Your task to perform on an android device: search for starred emails in the gmail app Image 0: 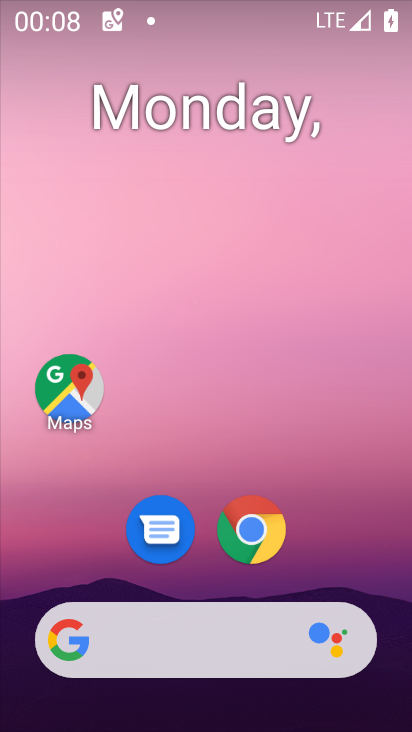
Step 0: drag from (315, 559) to (233, 116)
Your task to perform on an android device: search for starred emails in the gmail app Image 1: 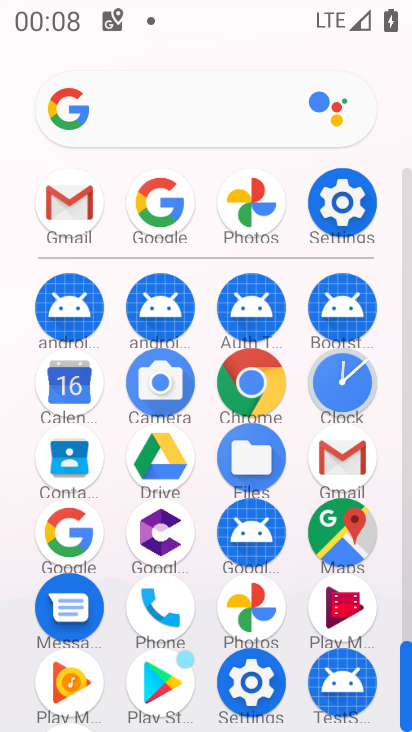
Step 1: click (65, 200)
Your task to perform on an android device: search for starred emails in the gmail app Image 2: 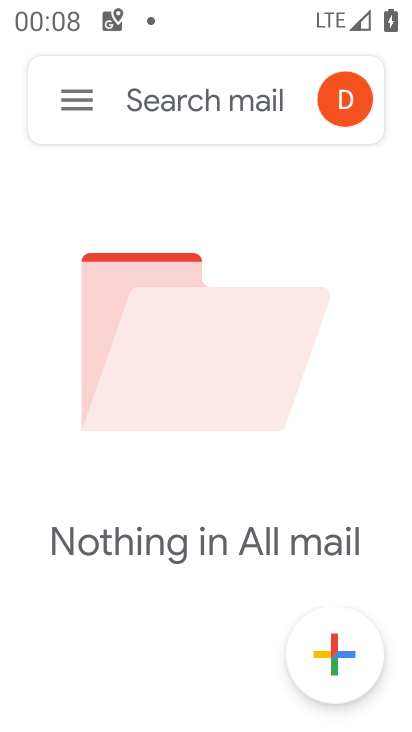
Step 2: click (75, 100)
Your task to perform on an android device: search for starred emails in the gmail app Image 3: 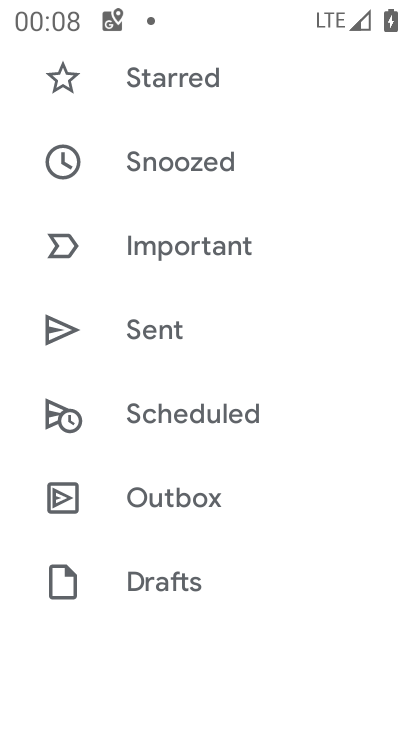
Step 3: drag from (176, 369) to (201, 231)
Your task to perform on an android device: search for starred emails in the gmail app Image 4: 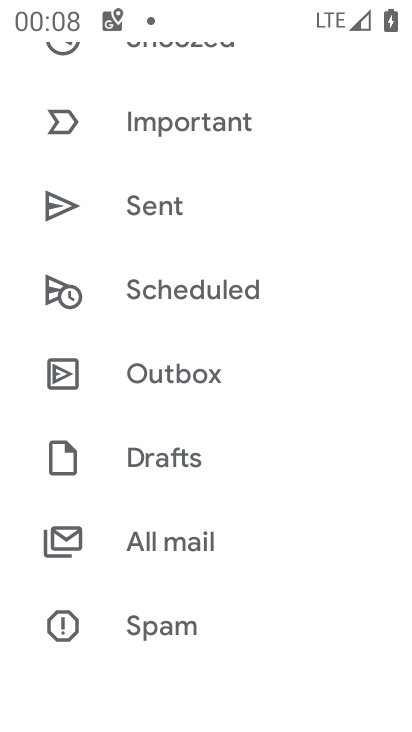
Step 4: drag from (212, 281) to (219, 469)
Your task to perform on an android device: search for starred emails in the gmail app Image 5: 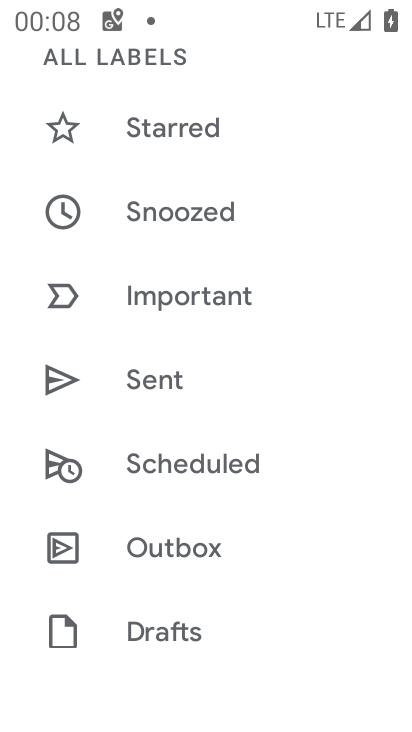
Step 5: click (181, 137)
Your task to perform on an android device: search for starred emails in the gmail app Image 6: 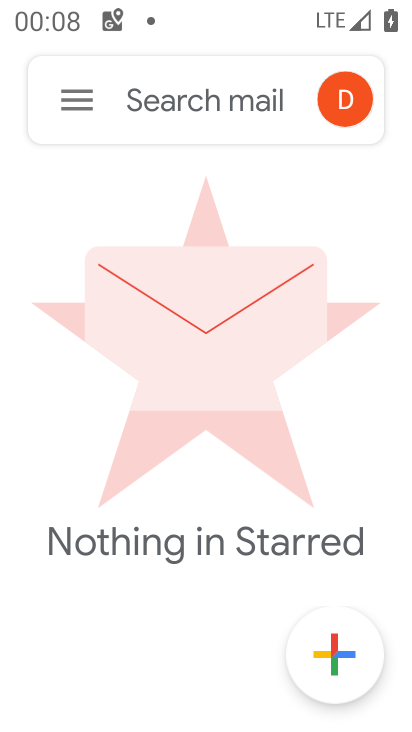
Step 6: task complete